Your task to perform on an android device: Go to calendar. Show me events next week Image 0: 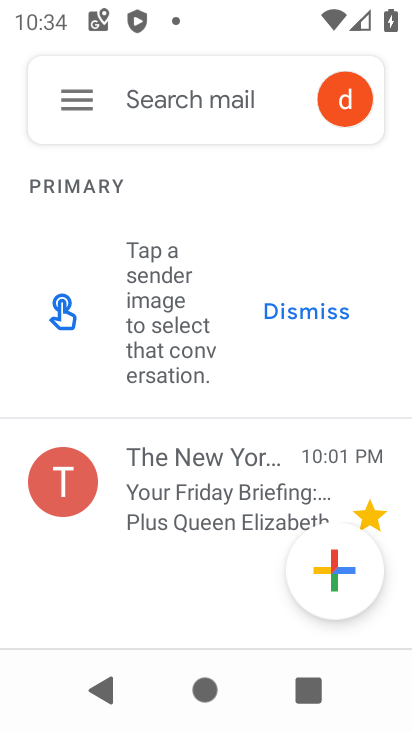
Step 0: press home button
Your task to perform on an android device: Go to calendar. Show me events next week Image 1: 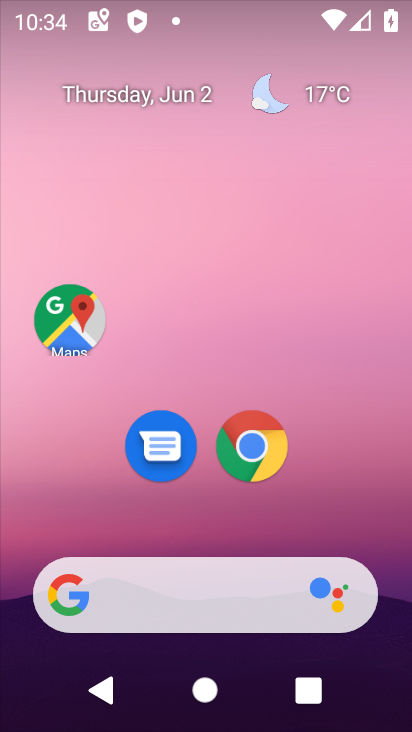
Step 1: drag from (356, 440) to (326, 103)
Your task to perform on an android device: Go to calendar. Show me events next week Image 2: 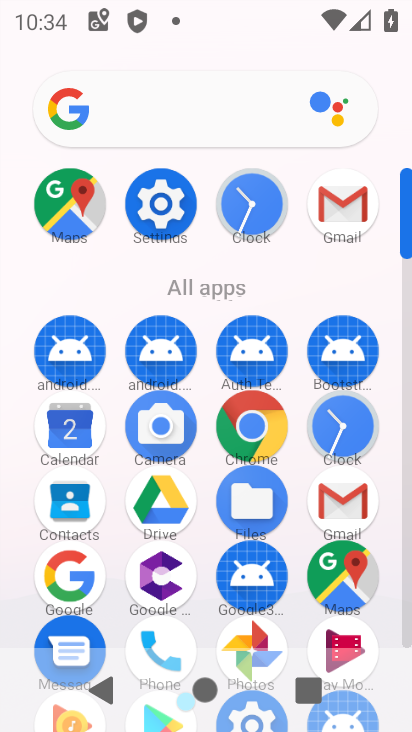
Step 2: click (67, 414)
Your task to perform on an android device: Go to calendar. Show me events next week Image 3: 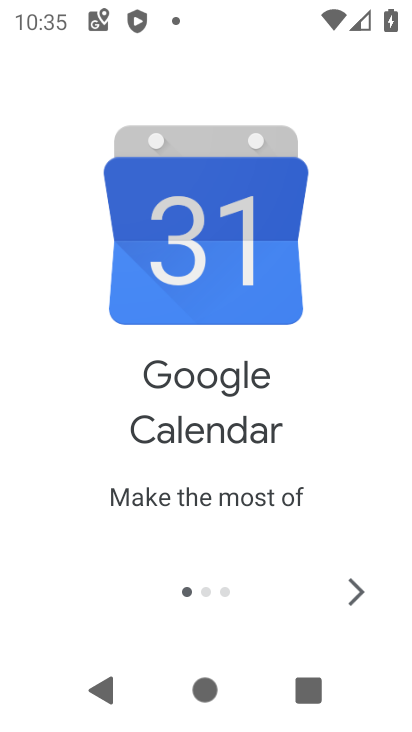
Step 3: click (356, 588)
Your task to perform on an android device: Go to calendar. Show me events next week Image 4: 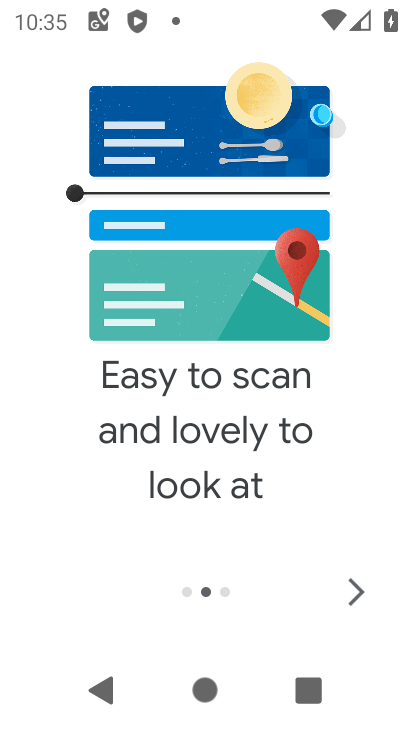
Step 4: click (356, 588)
Your task to perform on an android device: Go to calendar. Show me events next week Image 5: 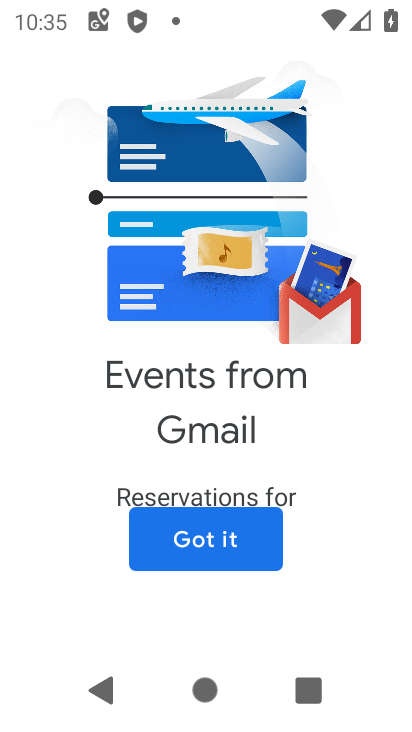
Step 5: click (263, 537)
Your task to perform on an android device: Go to calendar. Show me events next week Image 6: 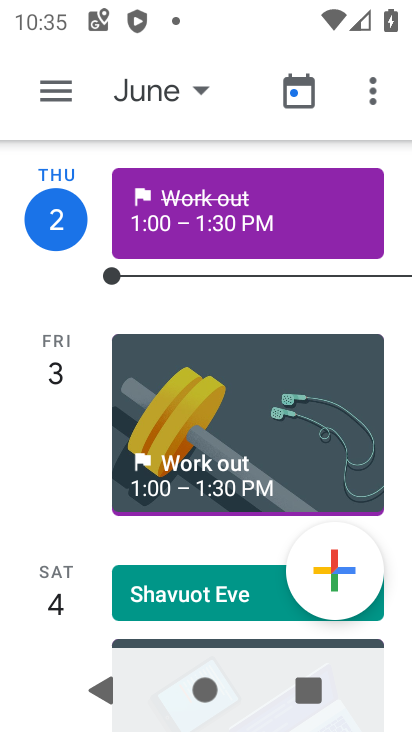
Step 6: click (170, 80)
Your task to perform on an android device: Go to calendar. Show me events next week Image 7: 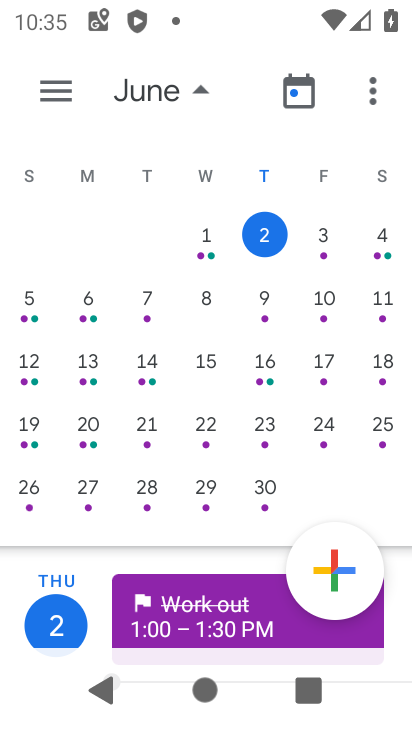
Step 7: click (41, 313)
Your task to perform on an android device: Go to calendar. Show me events next week Image 8: 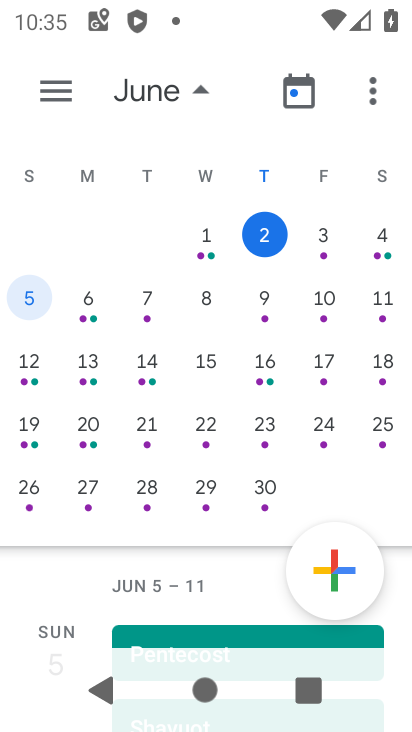
Step 8: click (60, 90)
Your task to perform on an android device: Go to calendar. Show me events next week Image 9: 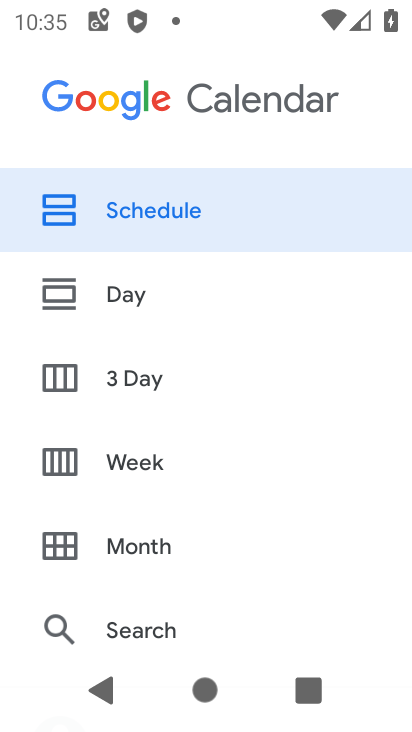
Step 9: click (157, 461)
Your task to perform on an android device: Go to calendar. Show me events next week Image 10: 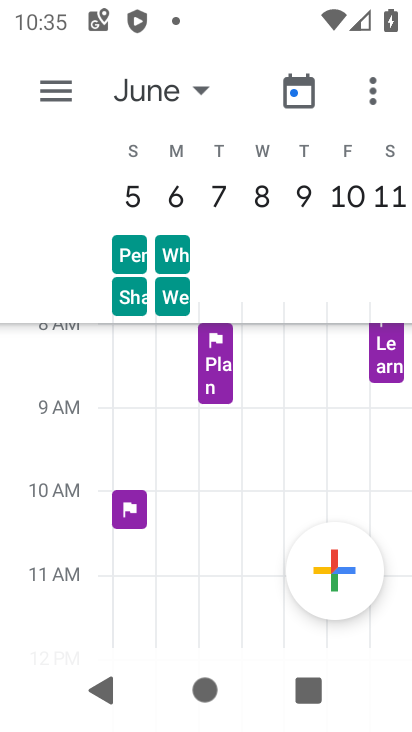
Step 10: task complete